Your task to perform on an android device: Go to eBay Image 0: 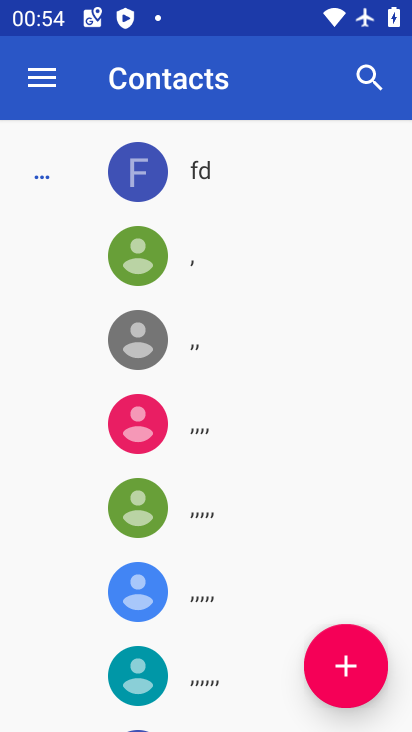
Step 0: press home button
Your task to perform on an android device: Go to eBay Image 1: 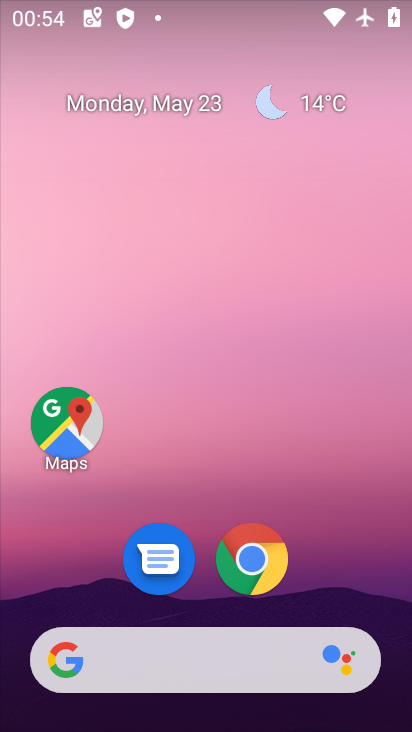
Step 1: click (252, 561)
Your task to perform on an android device: Go to eBay Image 2: 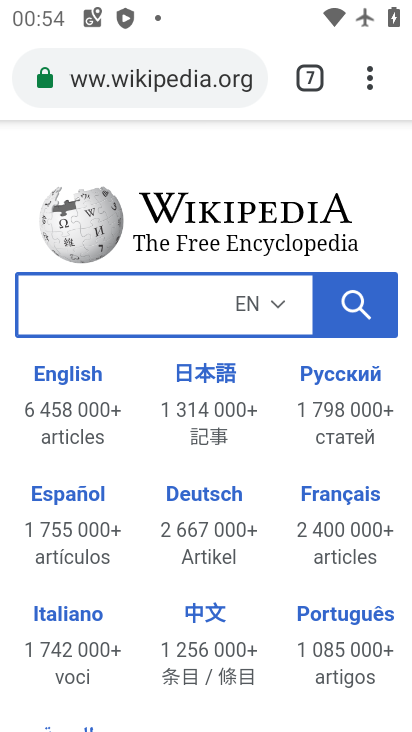
Step 2: click (94, 75)
Your task to perform on an android device: Go to eBay Image 3: 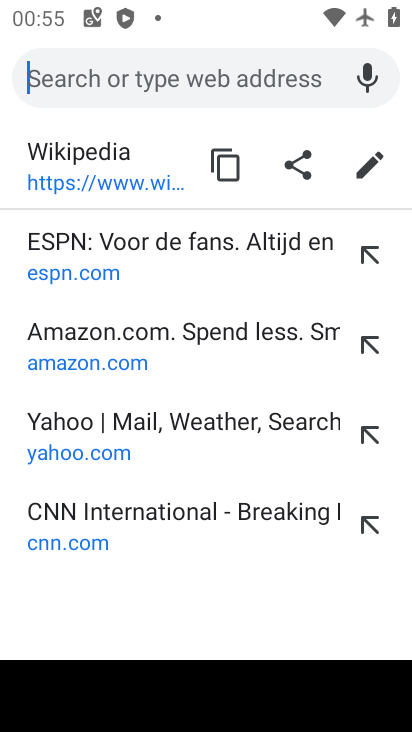
Step 3: type "ebay"
Your task to perform on an android device: Go to eBay Image 4: 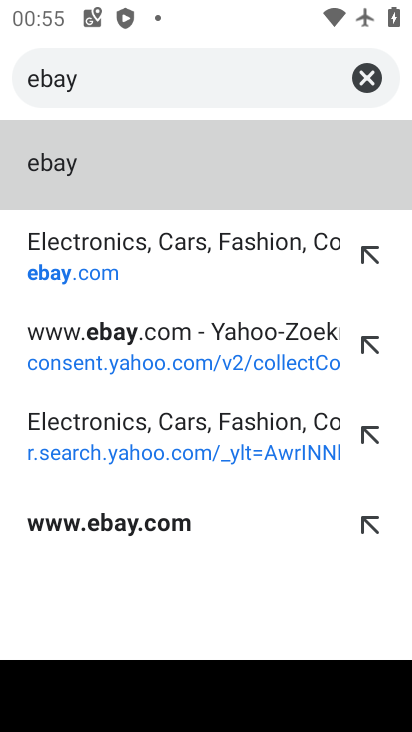
Step 4: click (41, 167)
Your task to perform on an android device: Go to eBay Image 5: 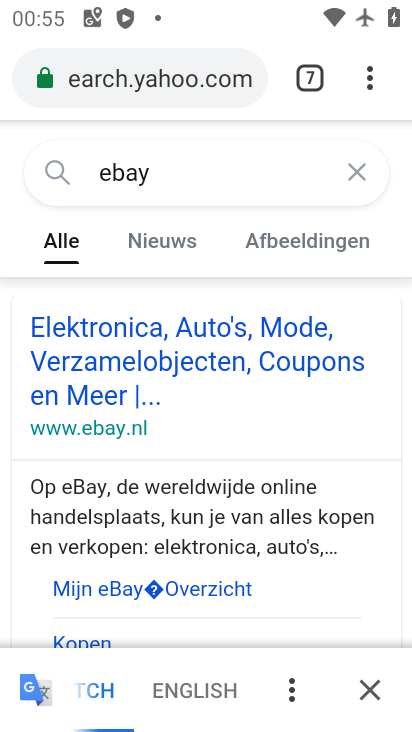
Step 5: click (93, 391)
Your task to perform on an android device: Go to eBay Image 6: 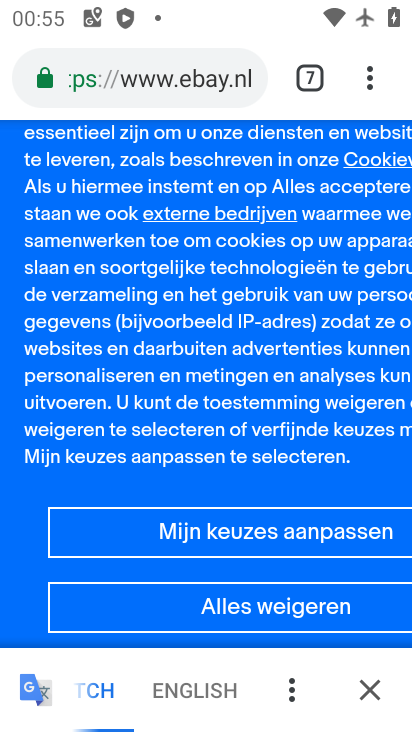
Step 6: task complete